Your task to perform on an android device: all mails in gmail Image 0: 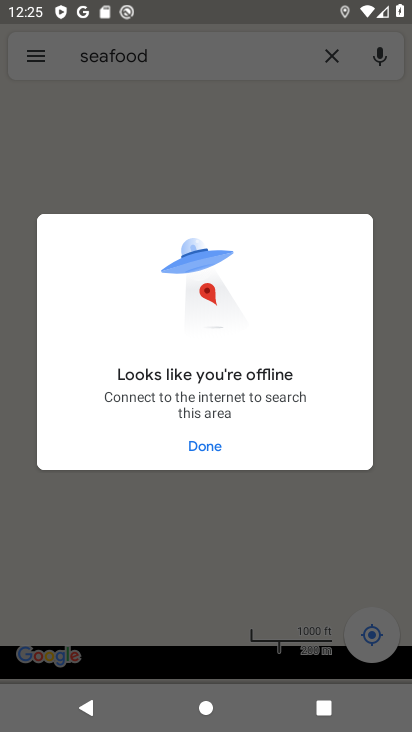
Step 0: press home button
Your task to perform on an android device: all mails in gmail Image 1: 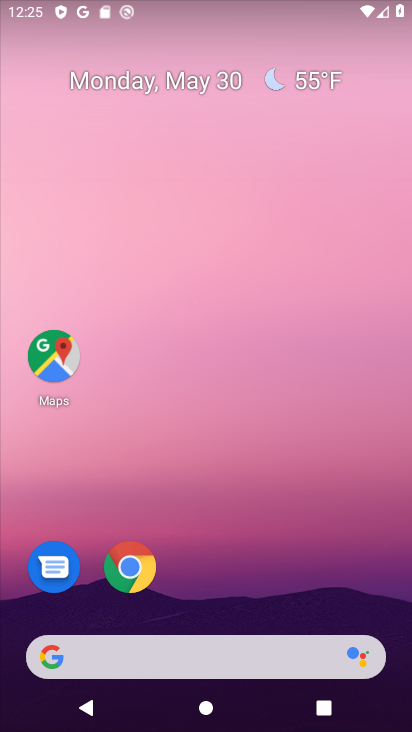
Step 1: drag from (214, 602) to (288, 68)
Your task to perform on an android device: all mails in gmail Image 2: 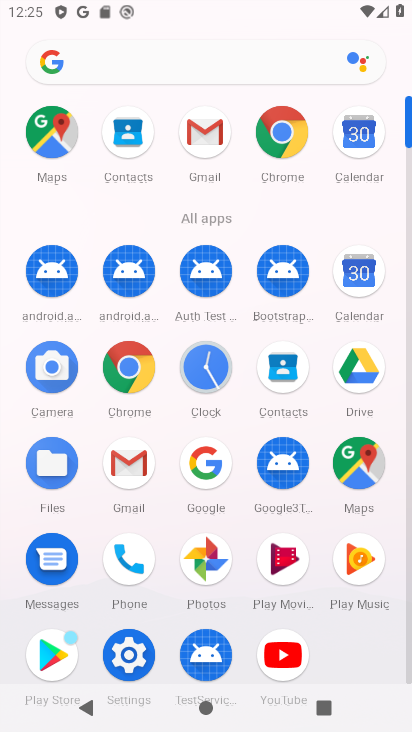
Step 2: click (205, 126)
Your task to perform on an android device: all mails in gmail Image 3: 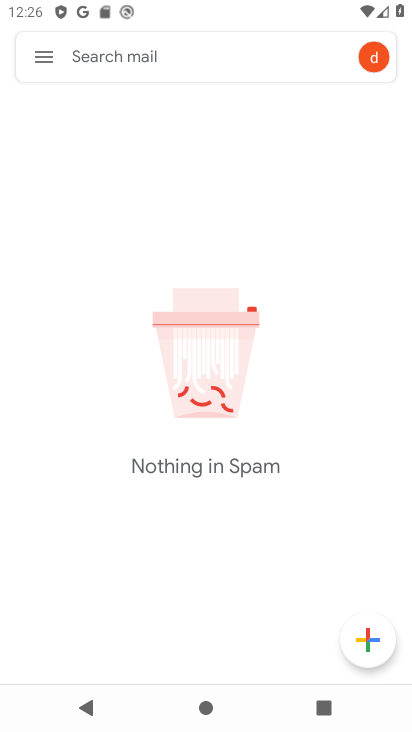
Step 3: click (47, 55)
Your task to perform on an android device: all mails in gmail Image 4: 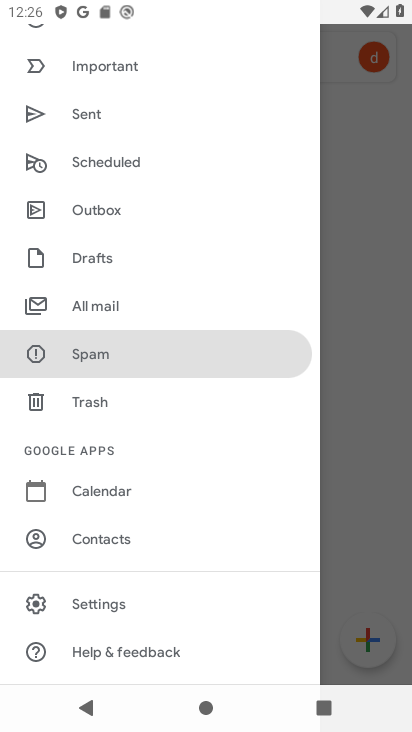
Step 4: click (129, 299)
Your task to perform on an android device: all mails in gmail Image 5: 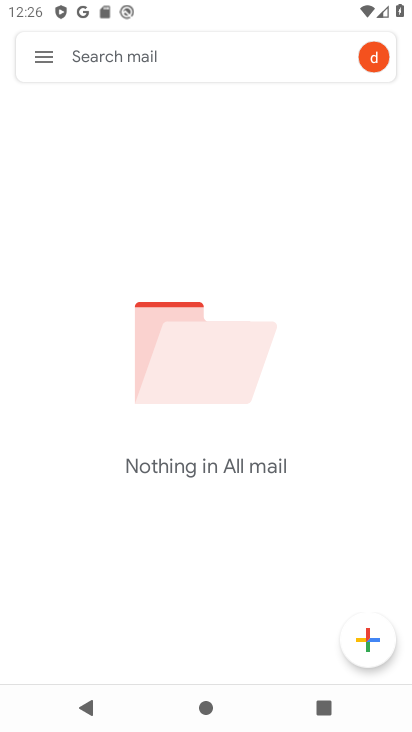
Step 5: task complete